Your task to perform on an android device: Open the calendar and show me this week's events Image 0: 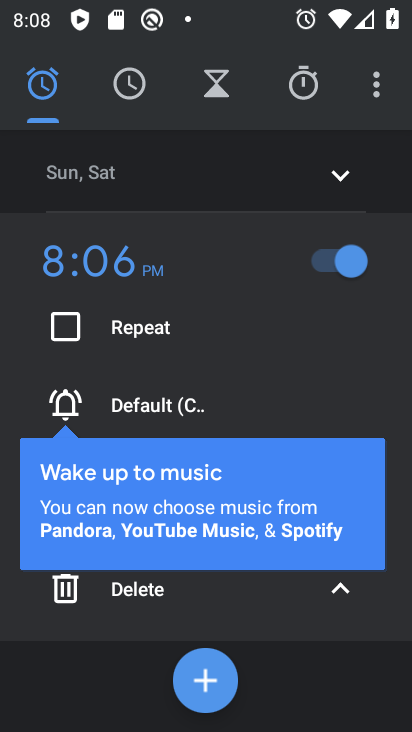
Step 0: press home button
Your task to perform on an android device: Open the calendar and show me this week's events Image 1: 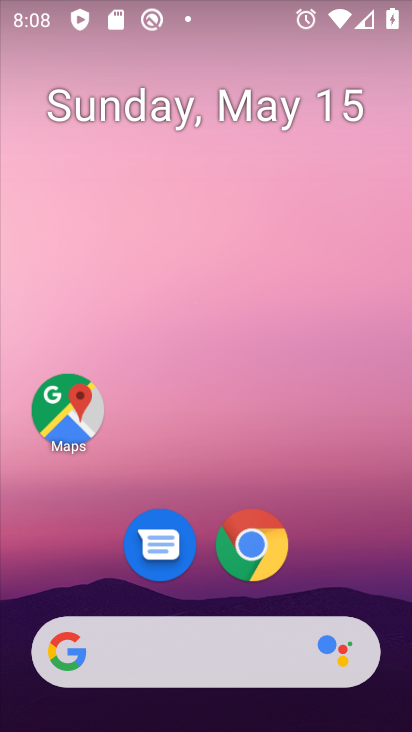
Step 1: drag from (370, 552) to (378, 25)
Your task to perform on an android device: Open the calendar and show me this week's events Image 2: 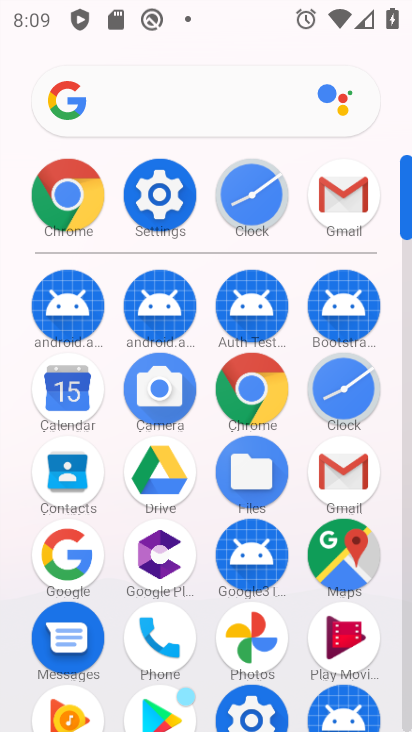
Step 2: click (47, 393)
Your task to perform on an android device: Open the calendar and show me this week's events Image 3: 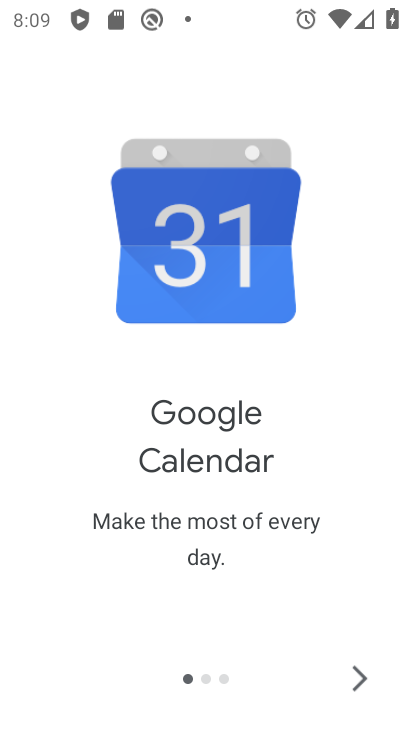
Step 3: click (352, 683)
Your task to perform on an android device: Open the calendar and show me this week's events Image 4: 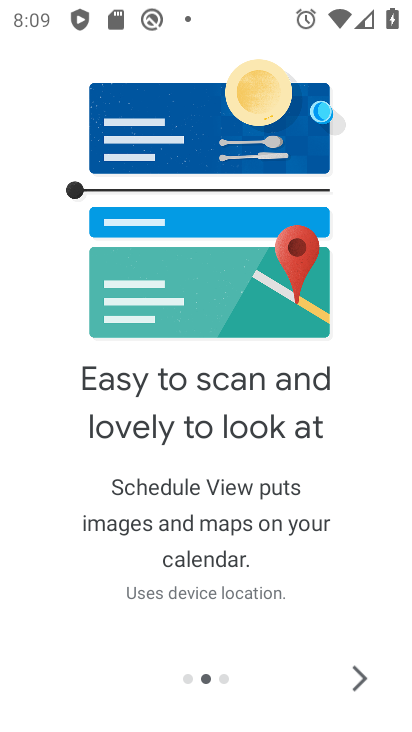
Step 4: click (352, 683)
Your task to perform on an android device: Open the calendar and show me this week's events Image 5: 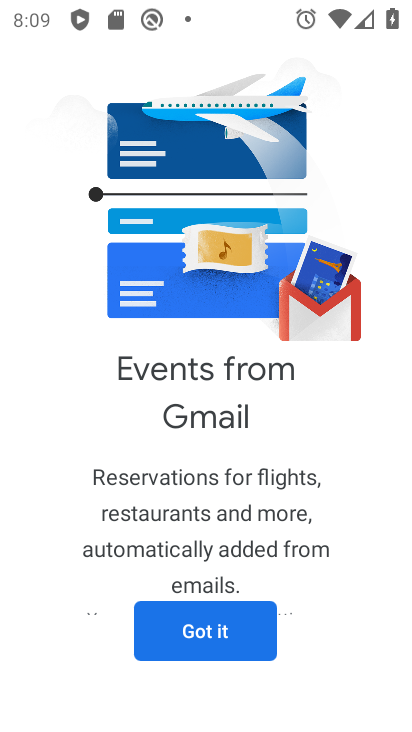
Step 5: click (179, 625)
Your task to perform on an android device: Open the calendar and show me this week's events Image 6: 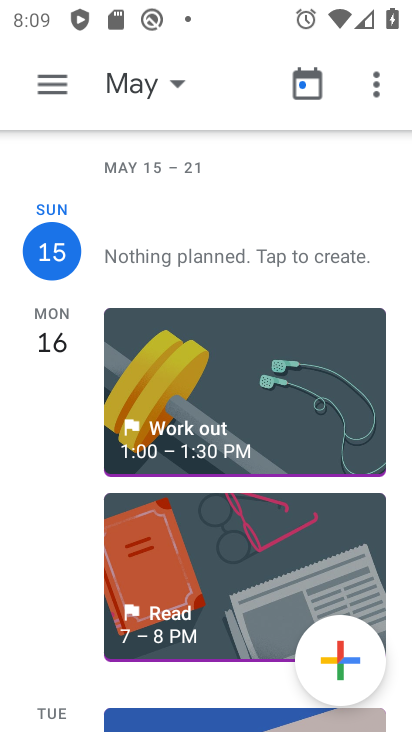
Step 6: click (182, 83)
Your task to perform on an android device: Open the calendar and show me this week's events Image 7: 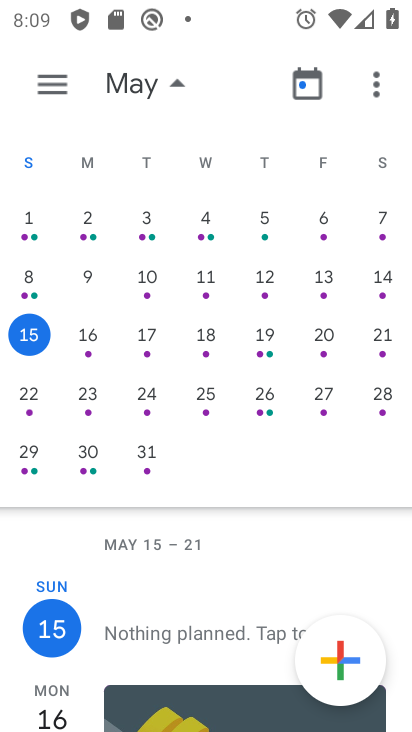
Step 7: click (90, 342)
Your task to perform on an android device: Open the calendar and show me this week's events Image 8: 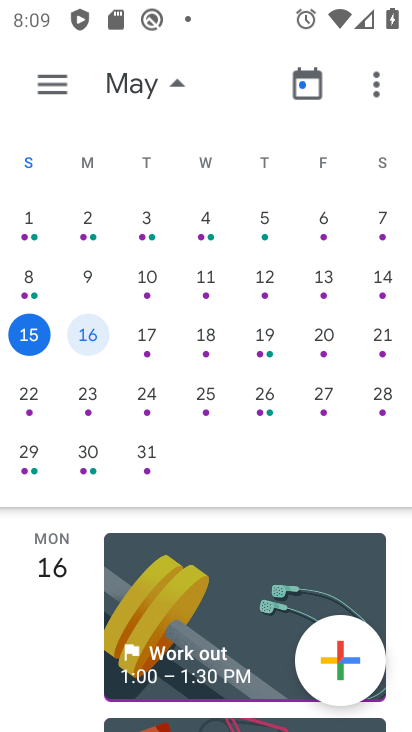
Step 8: task complete